Your task to perform on an android device: toggle priority inbox in the gmail app Image 0: 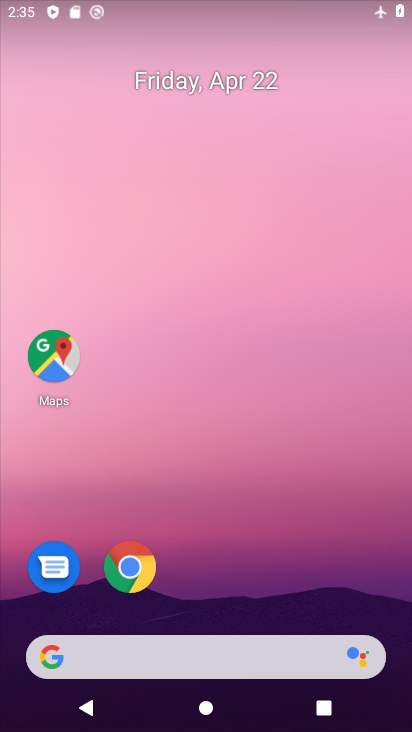
Step 0: drag from (278, 643) to (159, 130)
Your task to perform on an android device: toggle priority inbox in the gmail app Image 1: 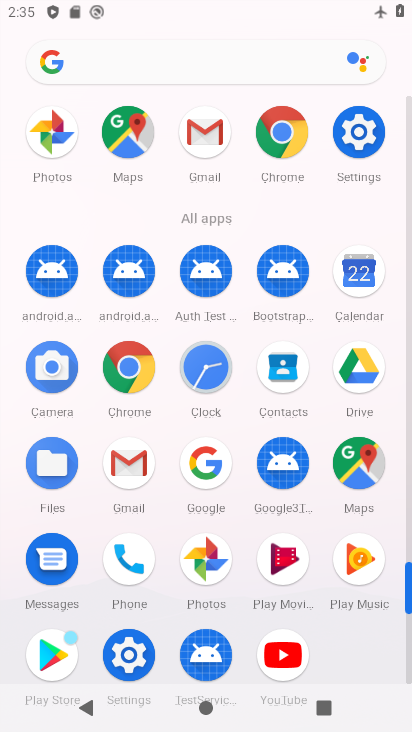
Step 1: click (130, 459)
Your task to perform on an android device: toggle priority inbox in the gmail app Image 2: 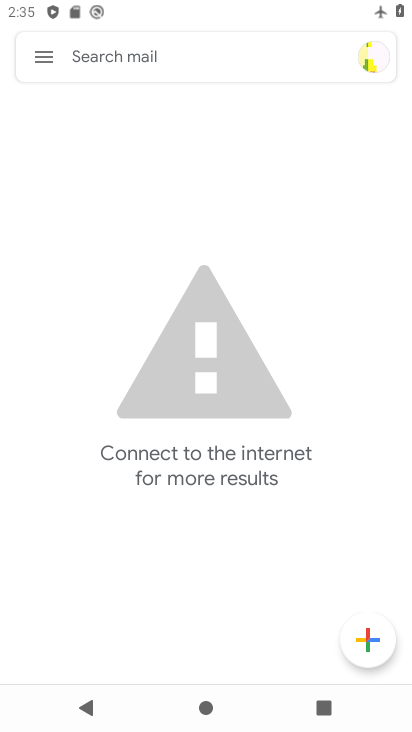
Step 2: click (37, 61)
Your task to perform on an android device: toggle priority inbox in the gmail app Image 3: 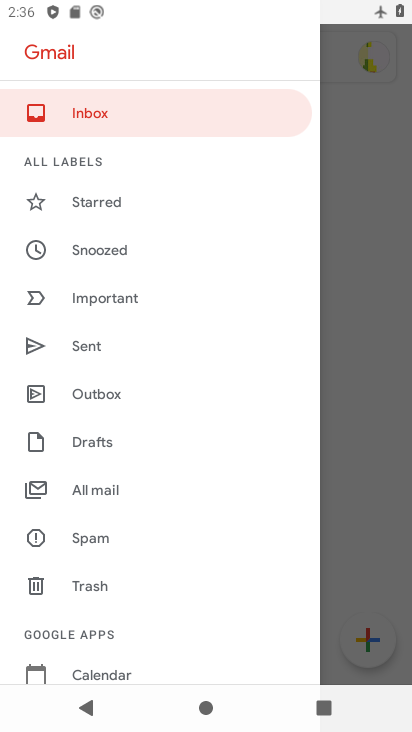
Step 3: click (97, 486)
Your task to perform on an android device: toggle priority inbox in the gmail app Image 4: 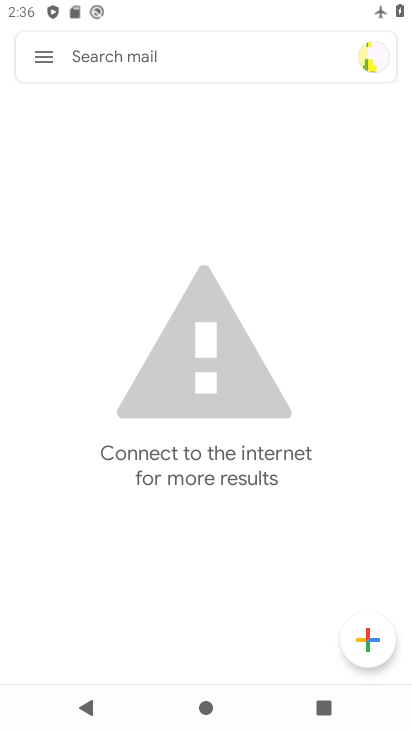
Step 4: click (38, 60)
Your task to perform on an android device: toggle priority inbox in the gmail app Image 5: 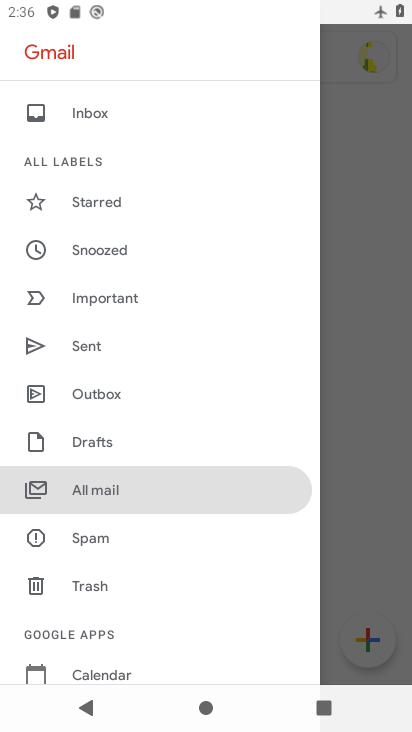
Step 5: drag from (196, 450) to (218, 138)
Your task to perform on an android device: toggle priority inbox in the gmail app Image 6: 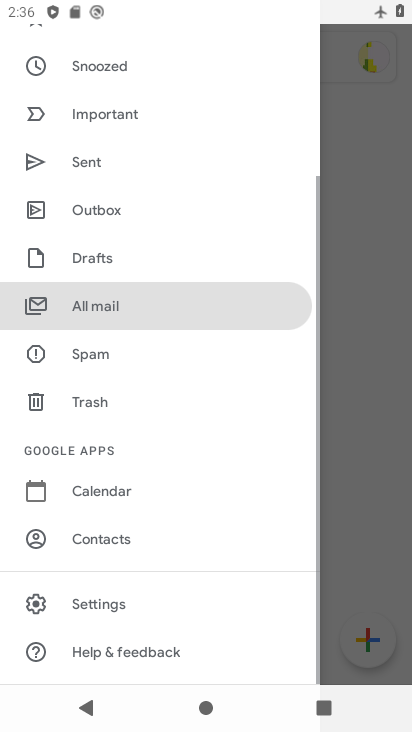
Step 6: drag from (199, 446) to (162, 178)
Your task to perform on an android device: toggle priority inbox in the gmail app Image 7: 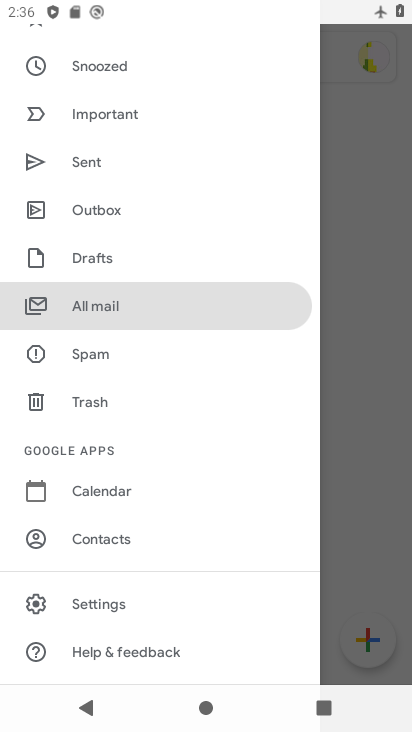
Step 7: click (89, 597)
Your task to perform on an android device: toggle priority inbox in the gmail app Image 8: 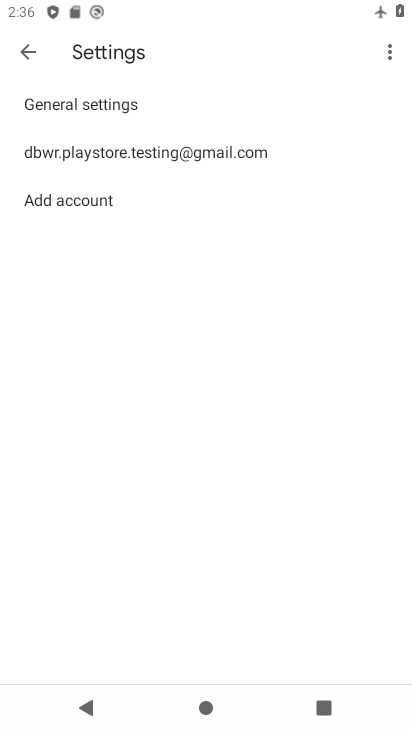
Step 8: click (92, 162)
Your task to perform on an android device: toggle priority inbox in the gmail app Image 9: 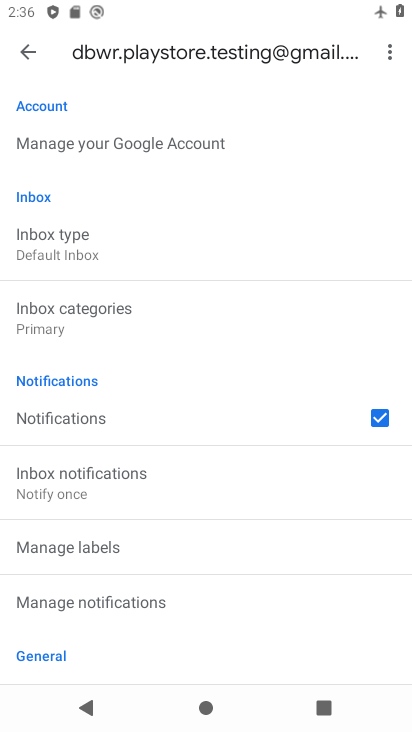
Step 9: click (50, 249)
Your task to perform on an android device: toggle priority inbox in the gmail app Image 10: 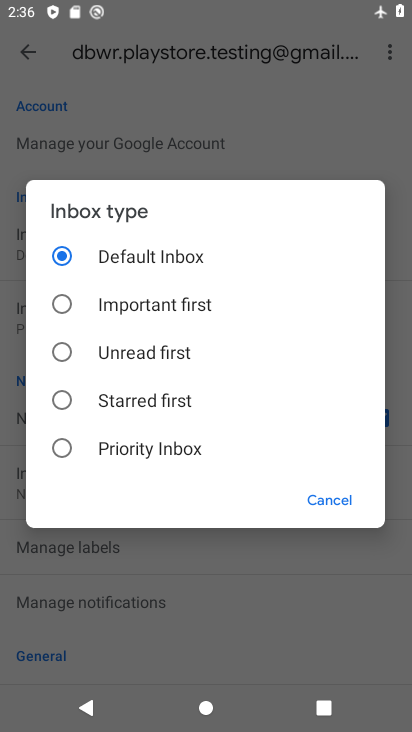
Step 10: click (61, 446)
Your task to perform on an android device: toggle priority inbox in the gmail app Image 11: 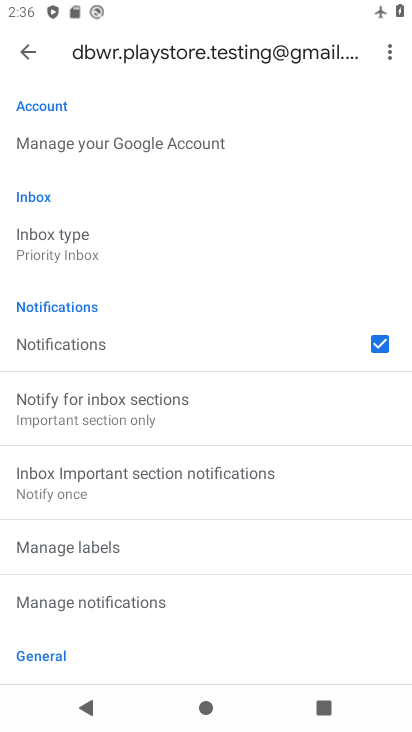
Step 11: task complete